Your task to perform on an android device: Open calendar and show me the second week of next month Image 0: 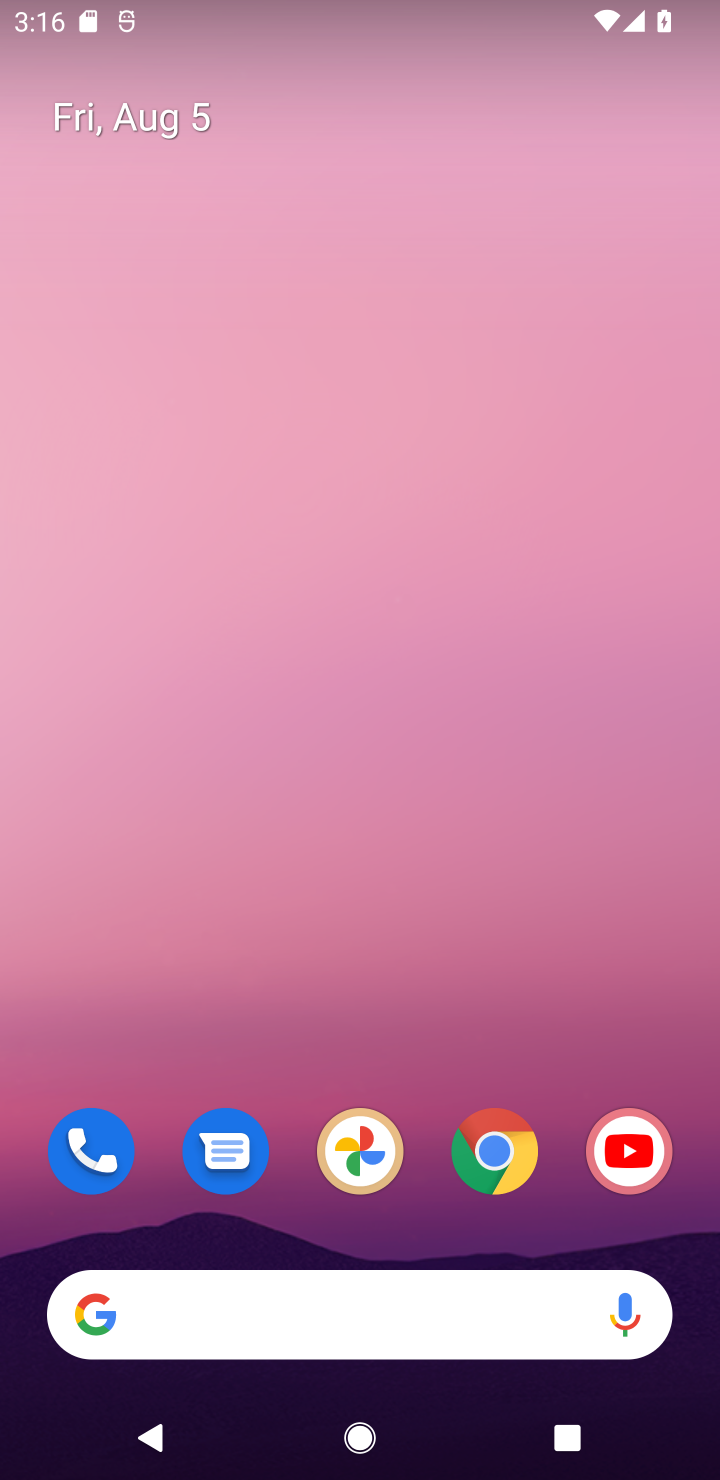
Step 0: drag from (482, 1060) to (375, 51)
Your task to perform on an android device: Open calendar and show me the second week of next month Image 1: 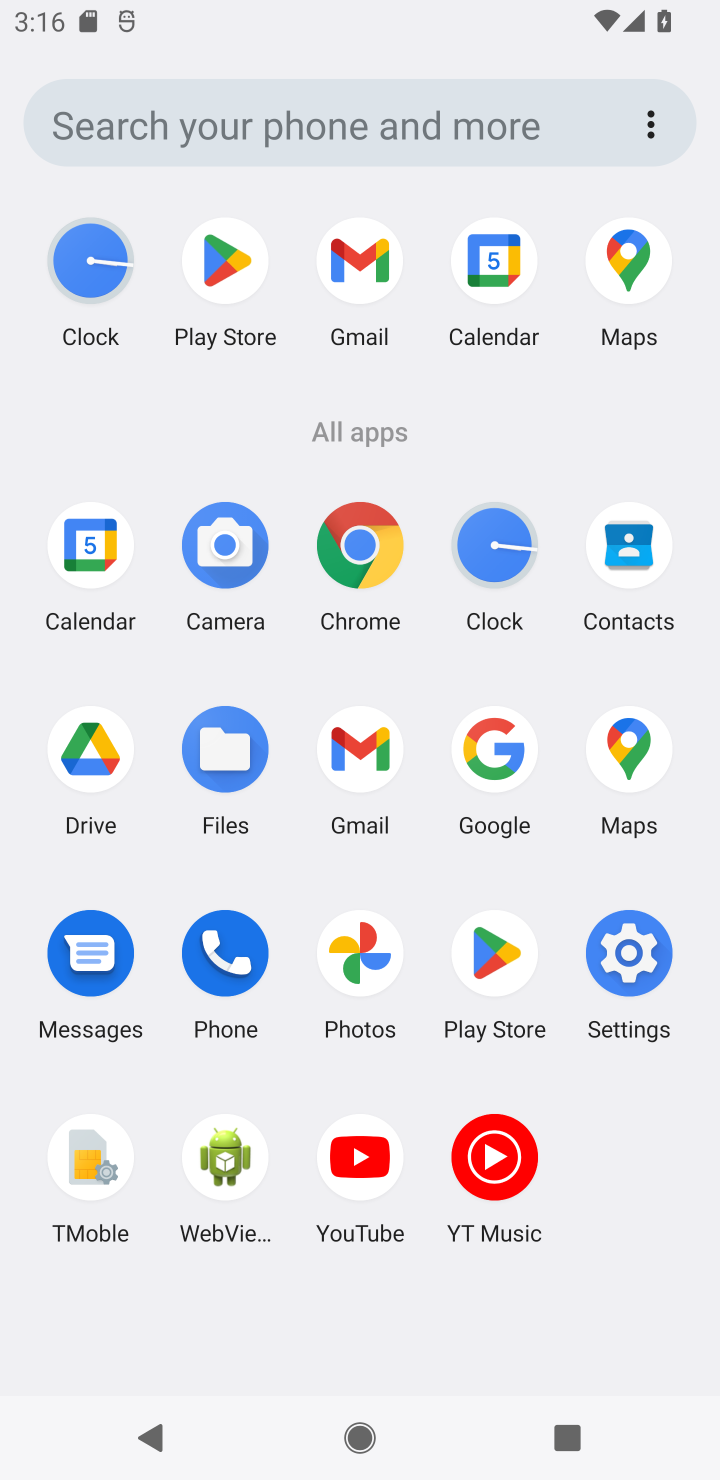
Step 1: click (83, 536)
Your task to perform on an android device: Open calendar and show me the second week of next month Image 2: 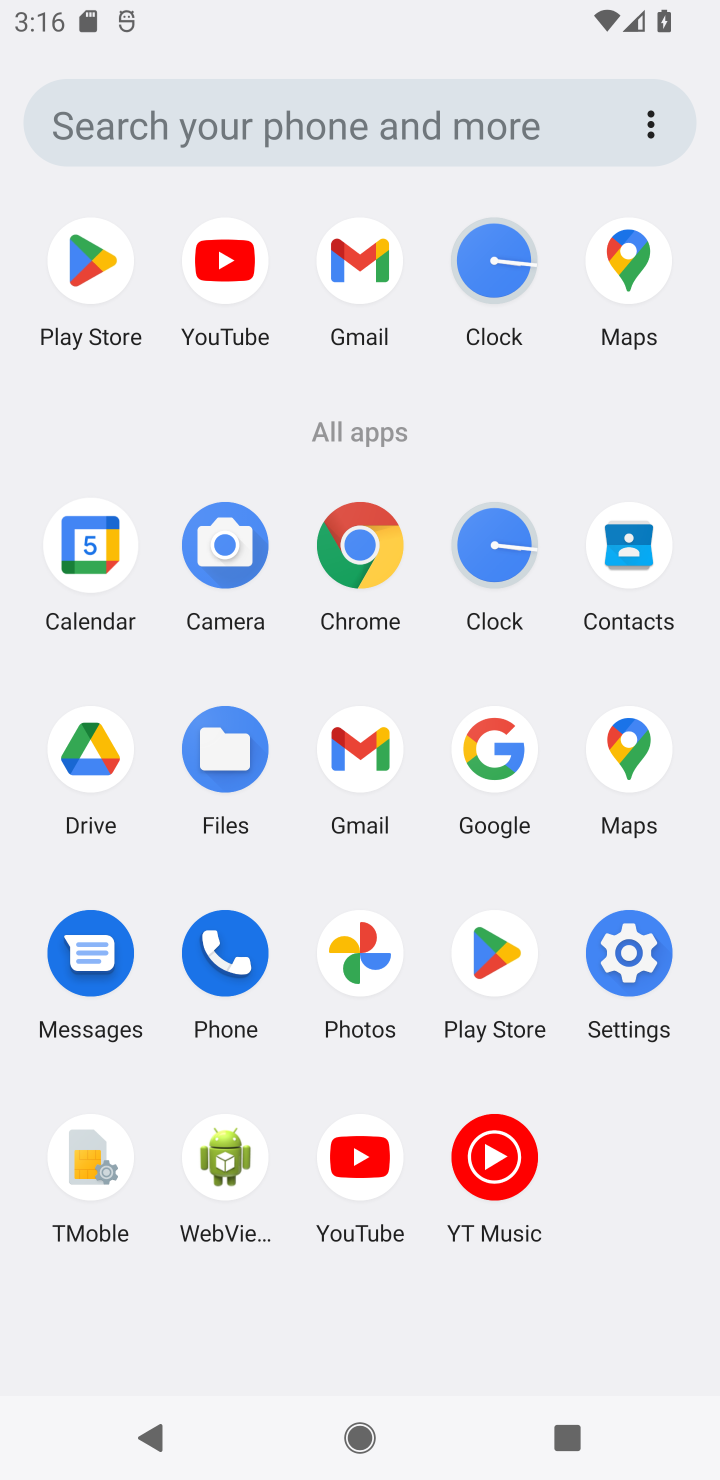
Step 2: click (86, 531)
Your task to perform on an android device: Open calendar and show me the second week of next month Image 3: 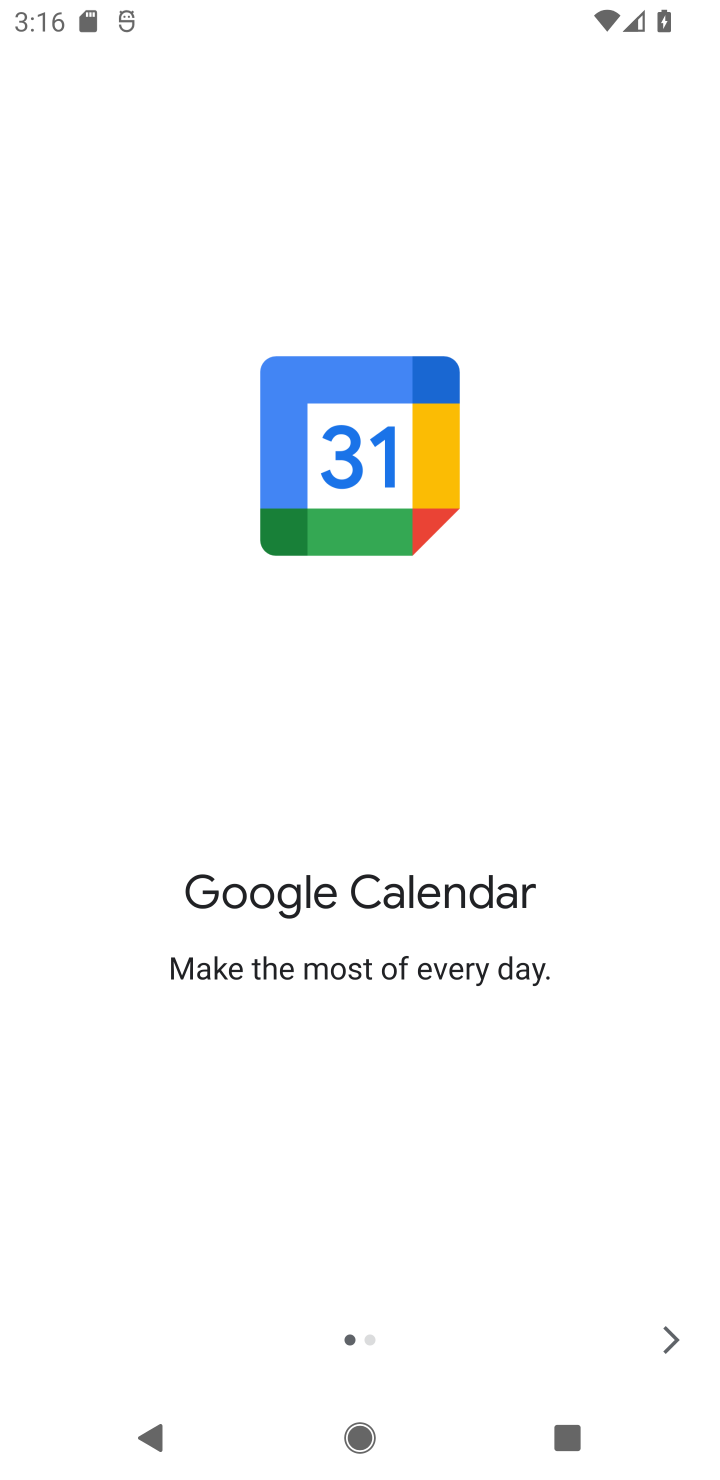
Step 3: click (670, 1330)
Your task to perform on an android device: Open calendar and show me the second week of next month Image 4: 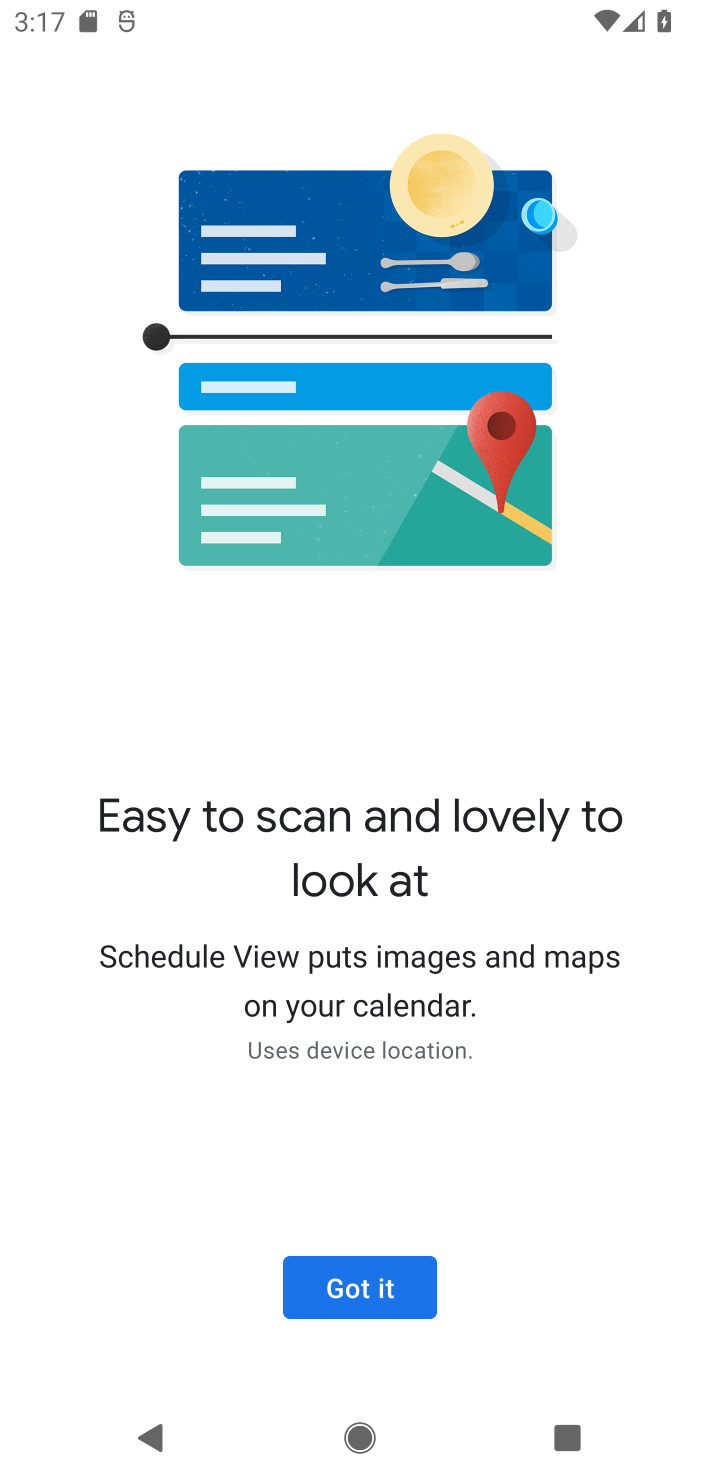
Step 4: click (670, 1330)
Your task to perform on an android device: Open calendar and show me the second week of next month Image 5: 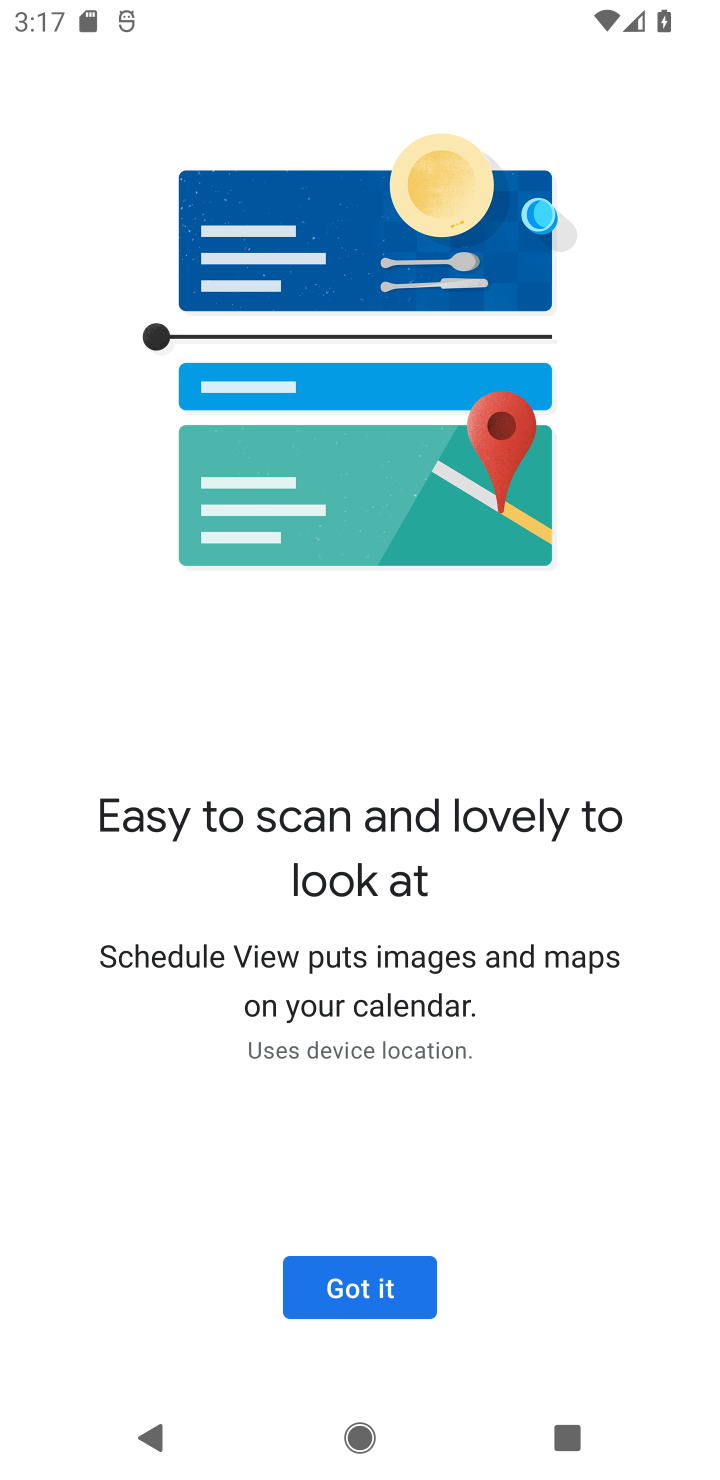
Step 5: click (322, 1292)
Your task to perform on an android device: Open calendar and show me the second week of next month Image 6: 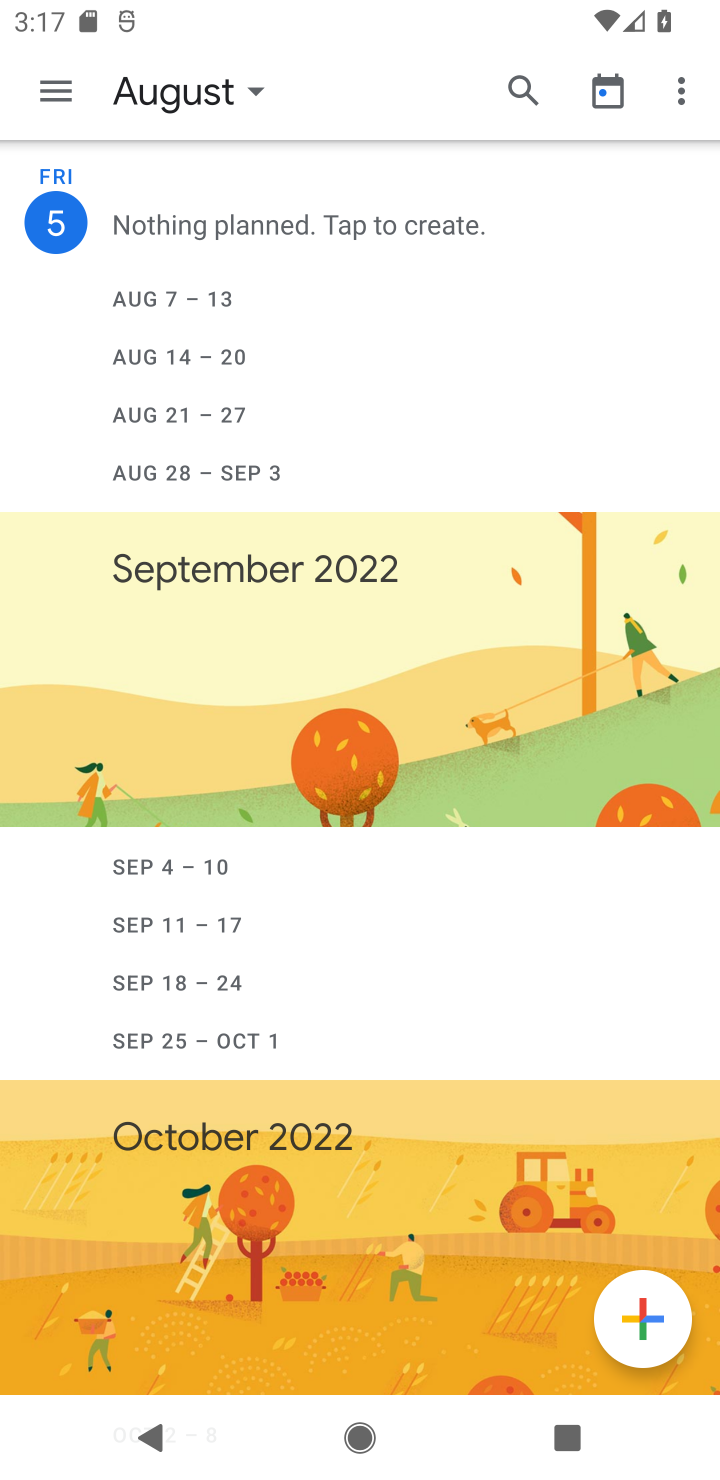
Step 6: click (67, 109)
Your task to perform on an android device: Open calendar and show me the second week of next month Image 7: 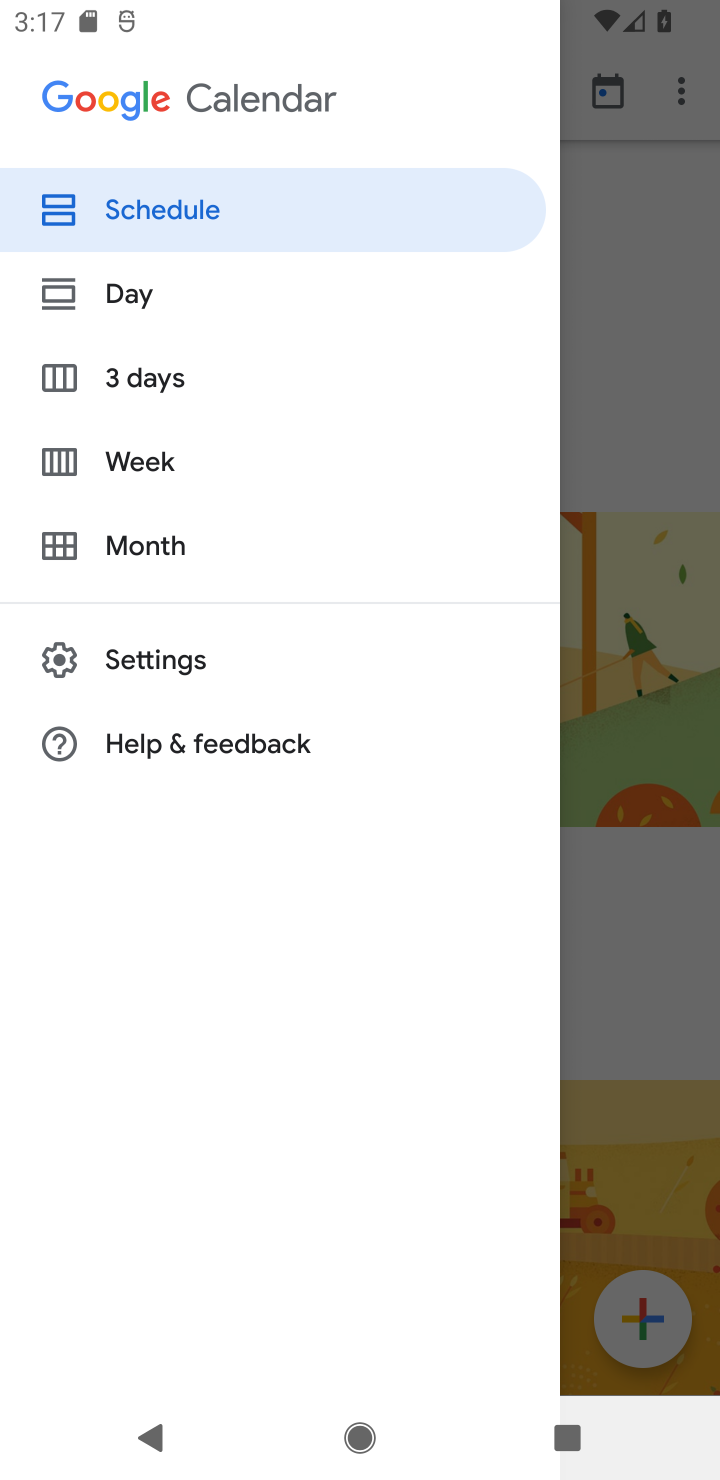
Step 7: click (173, 451)
Your task to perform on an android device: Open calendar and show me the second week of next month Image 8: 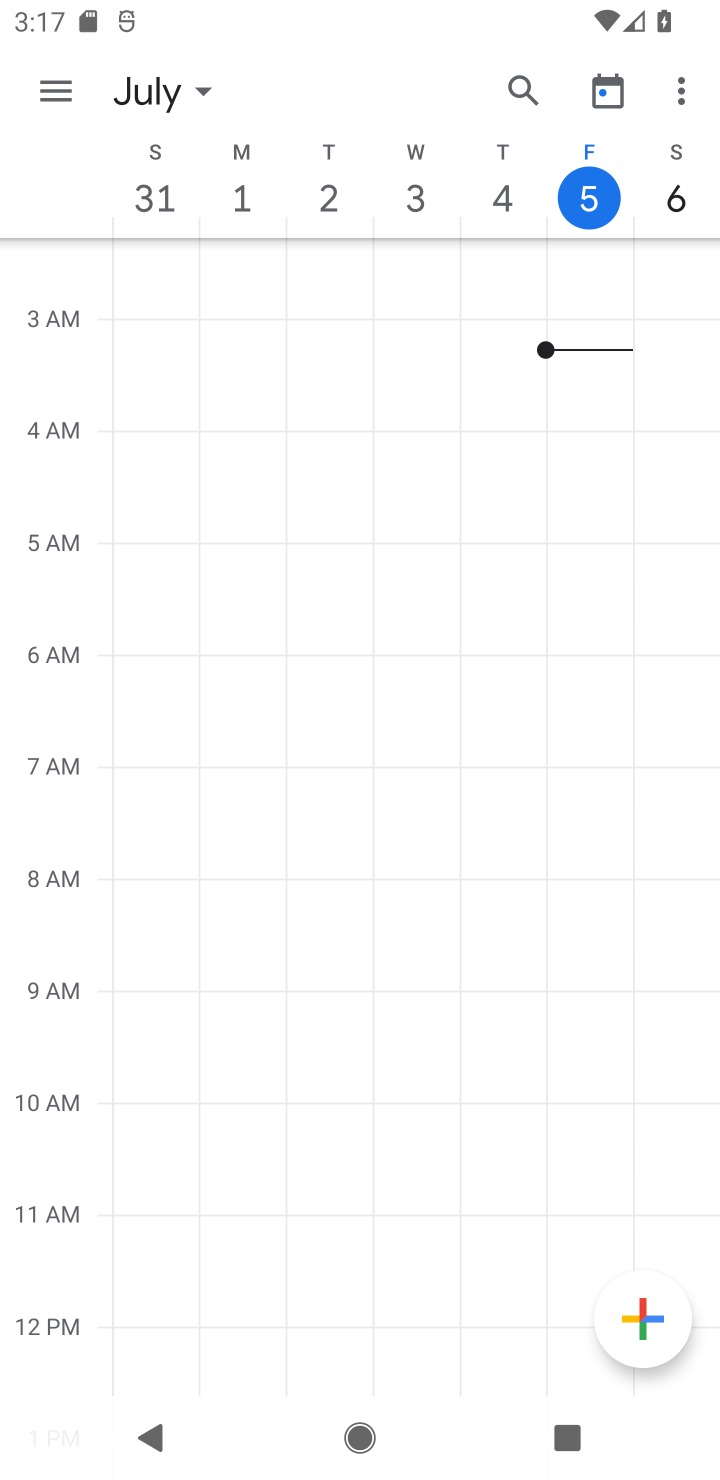
Step 8: click (166, 73)
Your task to perform on an android device: Open calendar and show me the second week of next month Image 9: 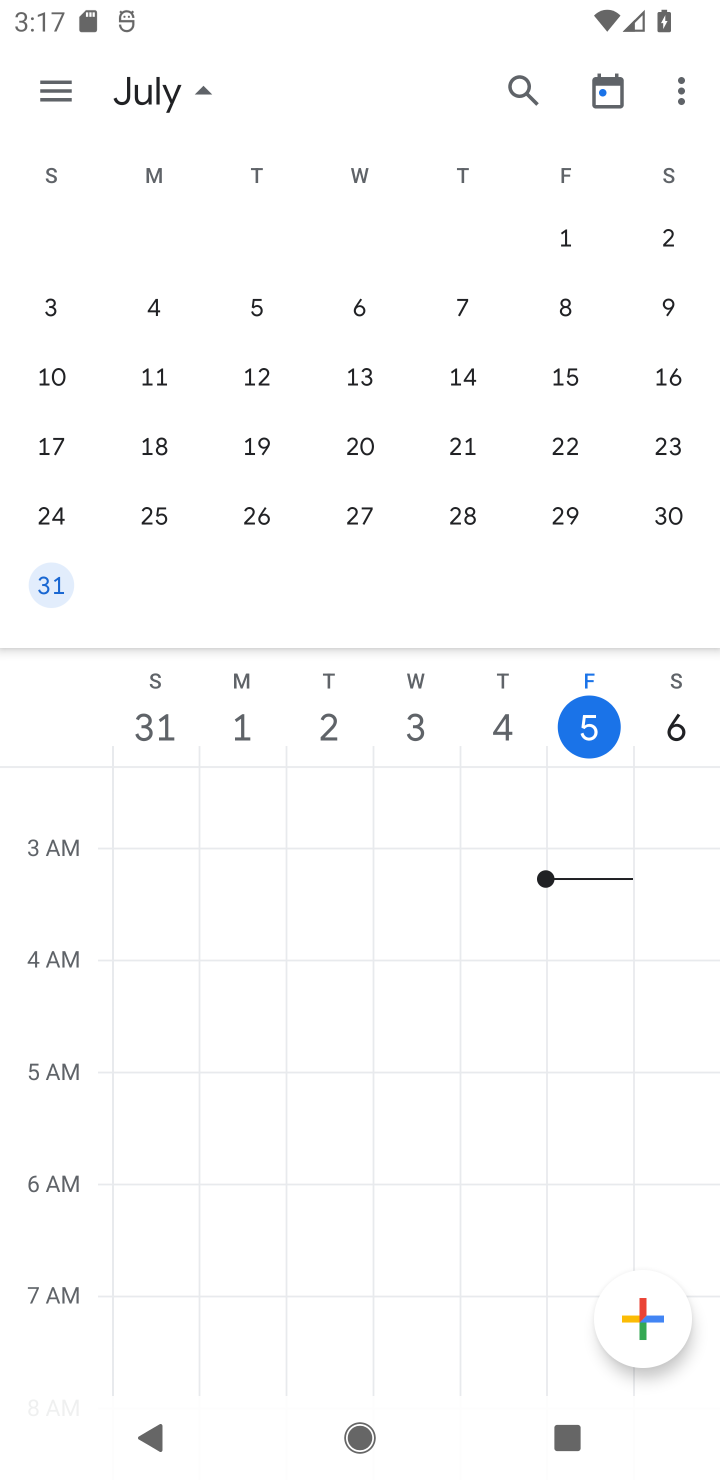
Step 9: drag from (668, 433) to (2, 383)
Your task to perform on an android device: Open calendar and show me the second week of next month Image 10: 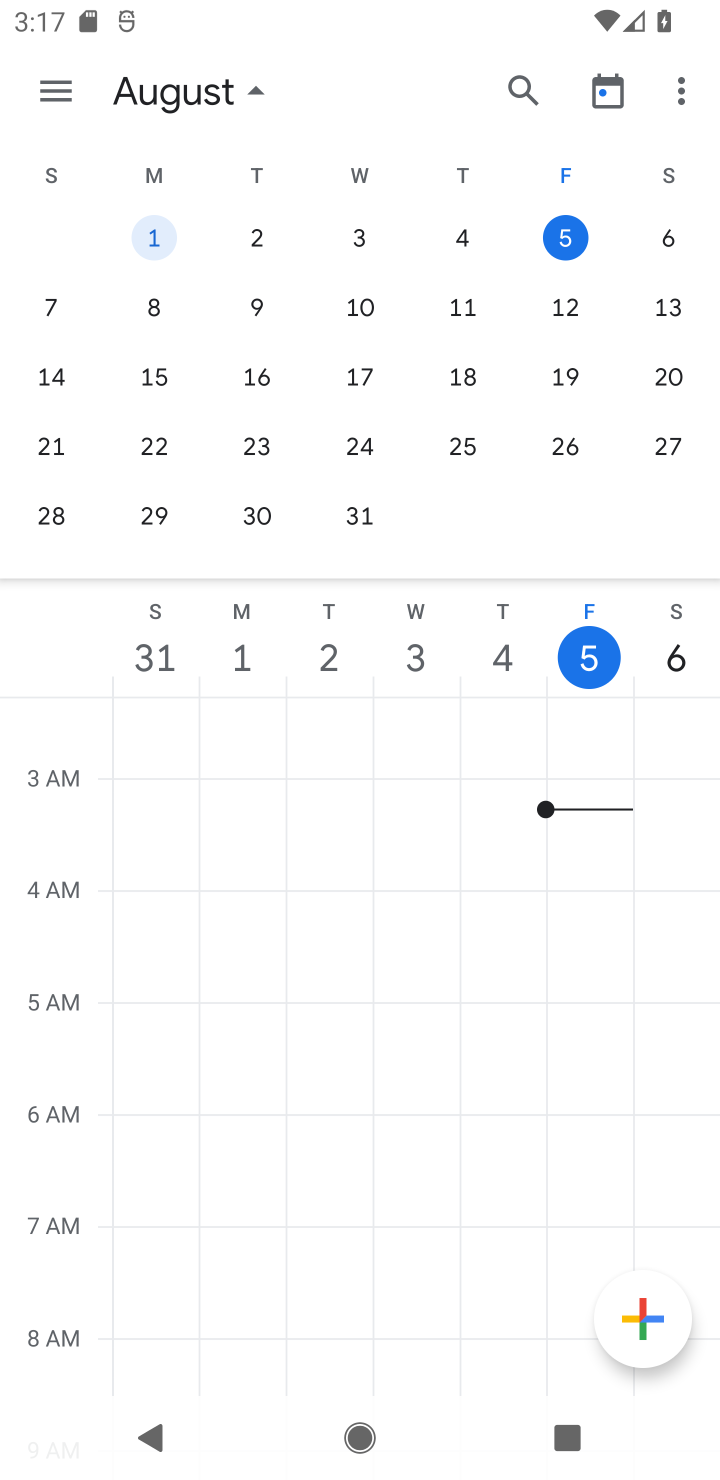
Step 10: drag from (680, 486) to (0, 453)
Your task to perform on an android device: Open calendar and show me the second week of next month Image 11: 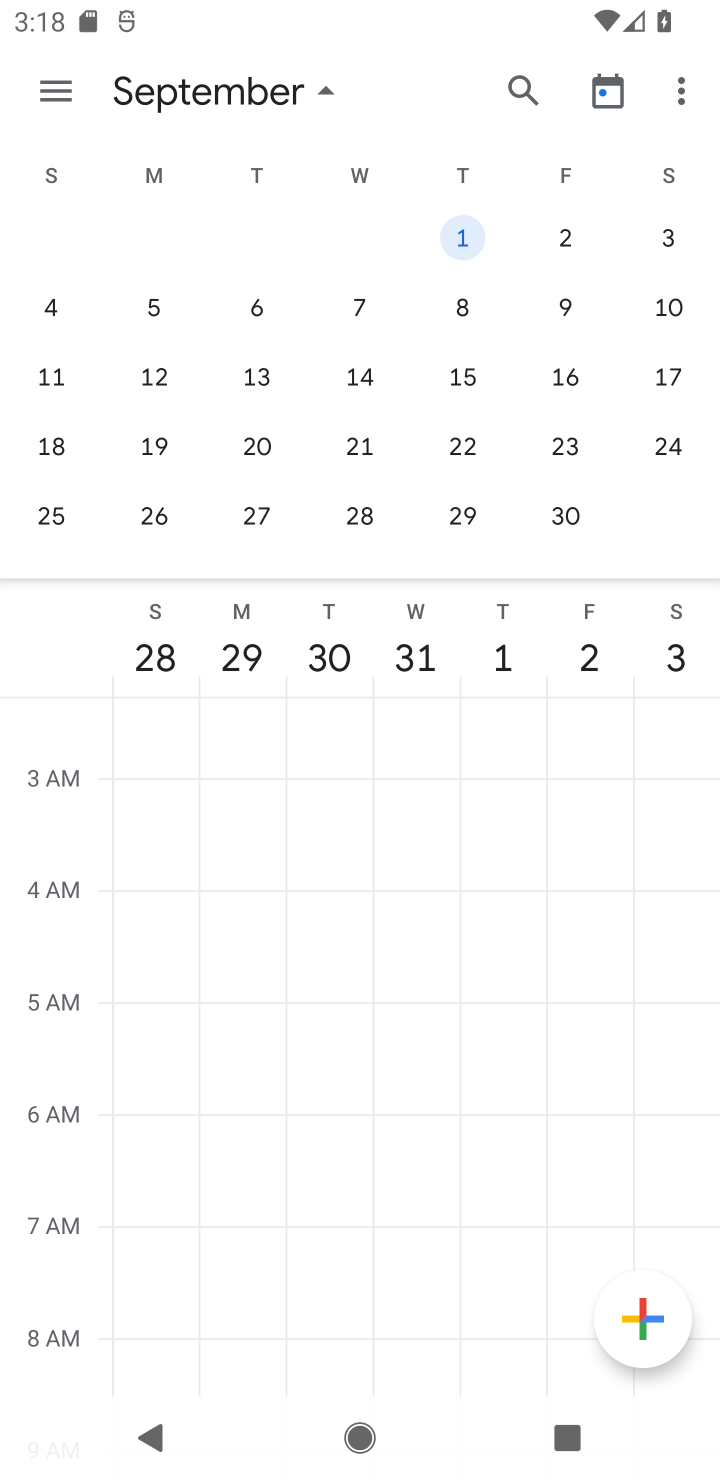
Step 11: click (372, 371)
Your task to perform on an android device: Open calendar and show me the second week of next month Image 12: 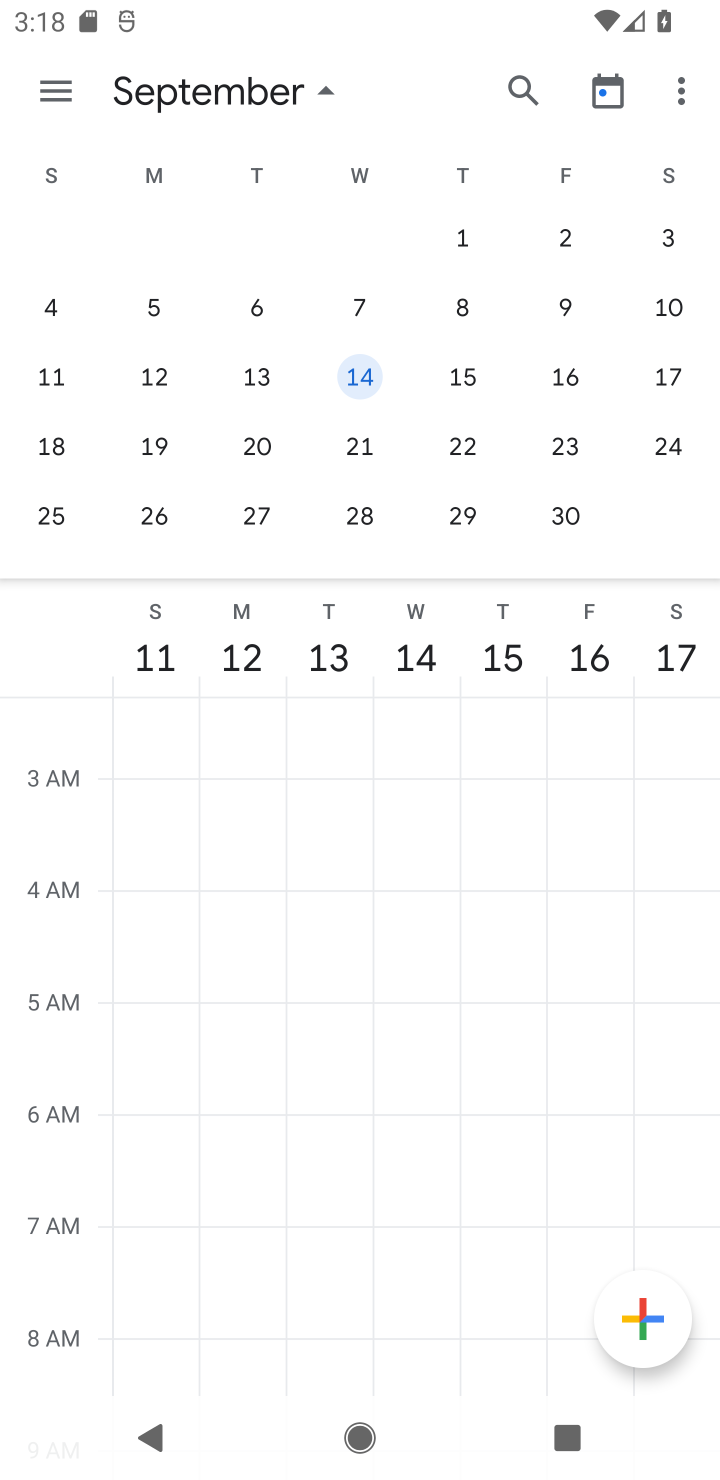
Step 12: task complete